Your task to perform on an android device: Open the Play Movies app and select the watchlist tab. Image 0: 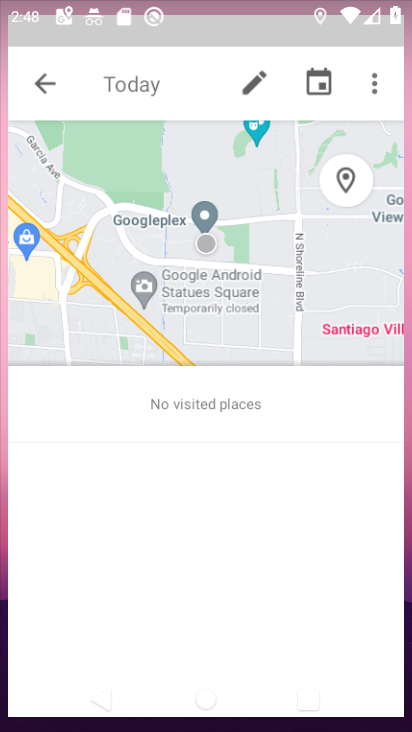
Step 0: drag from (200, 533) to (217, 156)
Your task to perform on an android device: Open the Play Movies app and select the watchlist tab. Image 1: 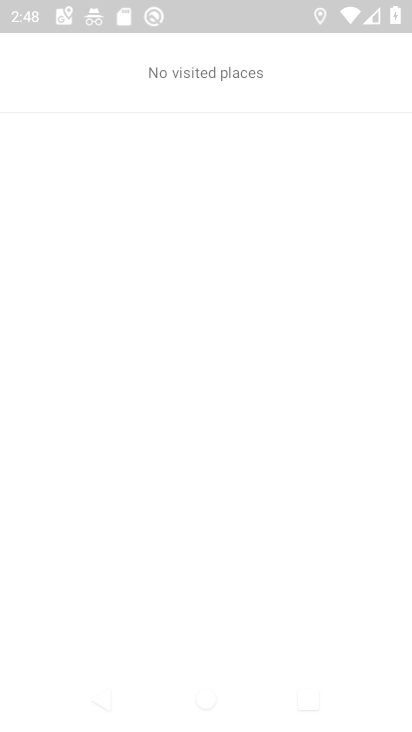
Step 1: press home button
Your task to perform on an android device: Open the Play Movies app and select the watchlist tab. Image 2: 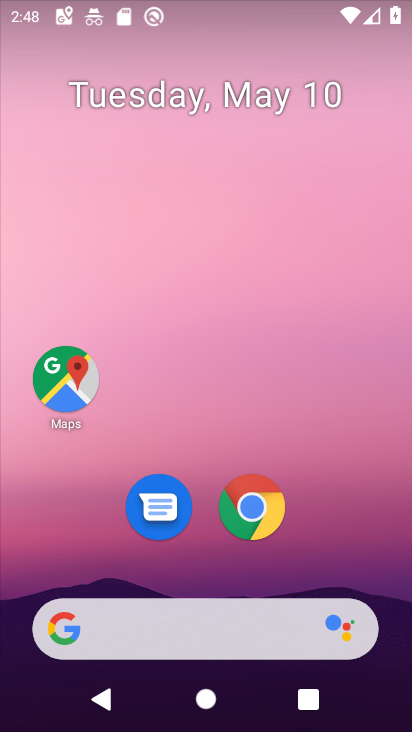
Step 2: drag from (204, 551) to (228, 174)
Your task to perform on an android device: Open the Play Movies app and select the watchlist tab. Image 3: 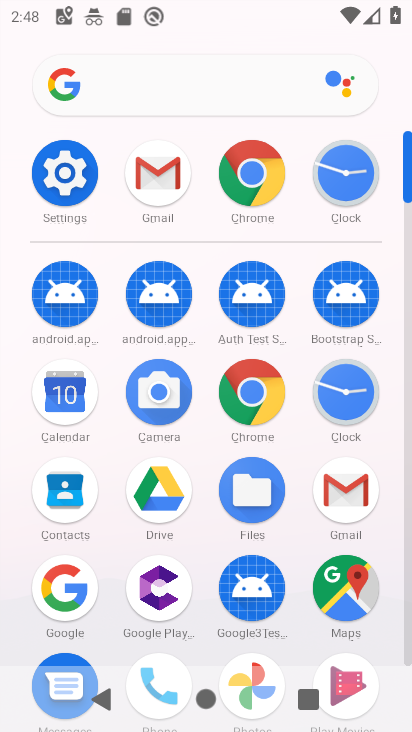
Step 3: drag from (299, 629) to (272, 343)
Your task to perform on an android device: Open the Play Movies app and select the watchlist tab. Image 4: 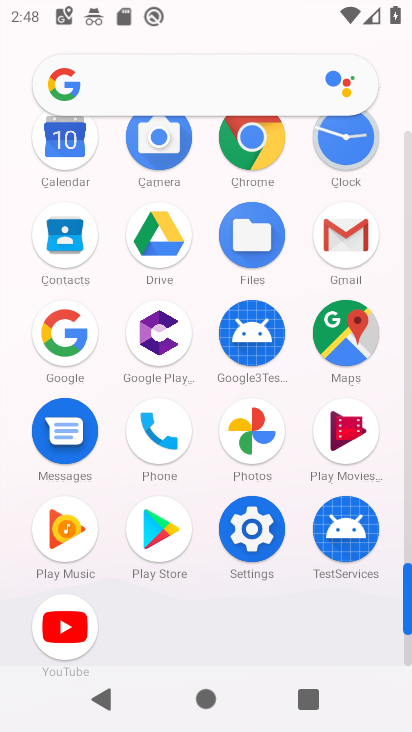
Step 4: click (346, 438)
Your task to perform on an android device: Open the Play Movies app and select the watchlist tab. Image 5: 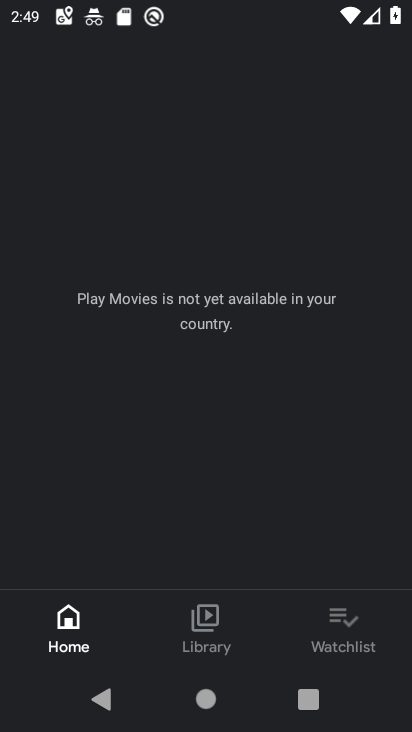
Step 5: click (350, 632)
Your task to perform on an android device: Open the Play Movies app and select the watchlist tab. Image 6: 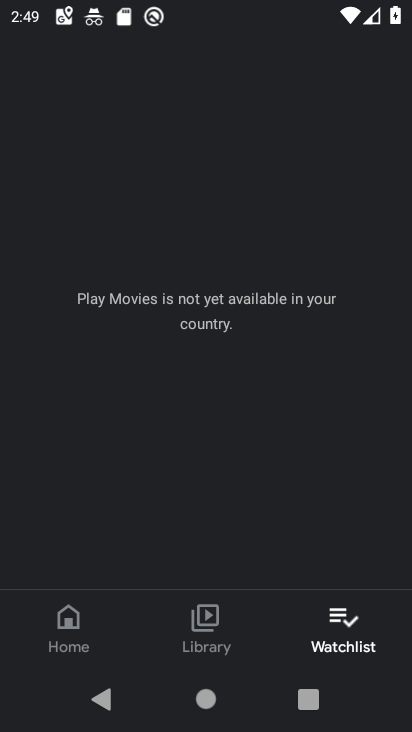
Step 6: task complete